Your task to perform on an android device: Open privacy settings Image 0: 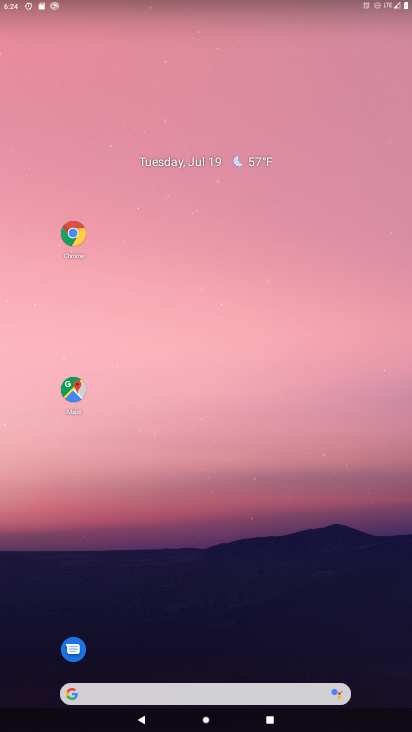
Step 0: drag from (142, 542) to (144, 14)
Your task to perform on an android device: Open privacy settings Image 1: 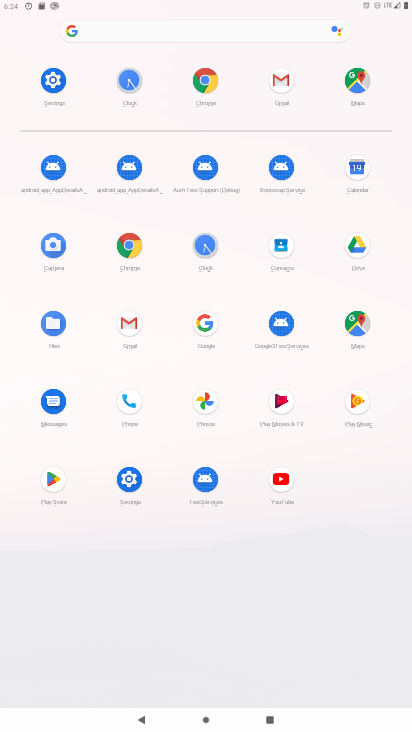
Step 1: click (52, 77)
Your task to perform on an android device: Open privacy settings Image 2: 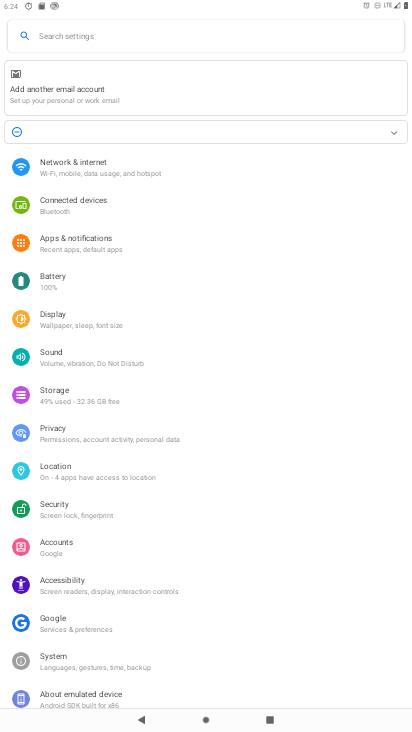
Step 2: click (51, 428)
Your task to perform on an android device: Open privacy settings Image 3: 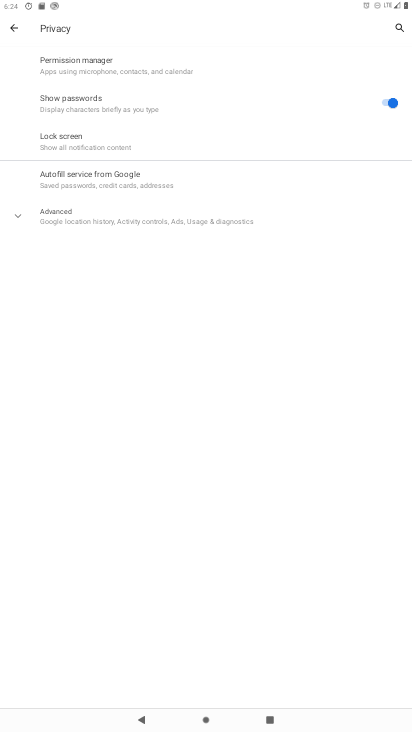
Step 3: task complete